Your task to perform on an android device: Open my contact list Image 0: 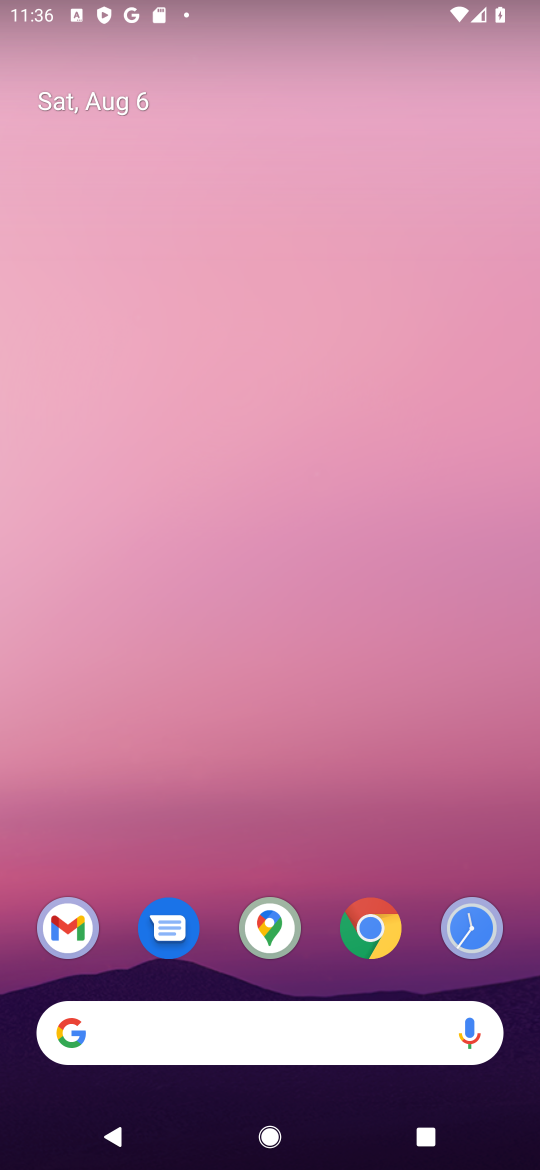
Step 0: drag from (145, 838) to (159, 109)
Your task to perform on an android device: Open my contact list Image 1: 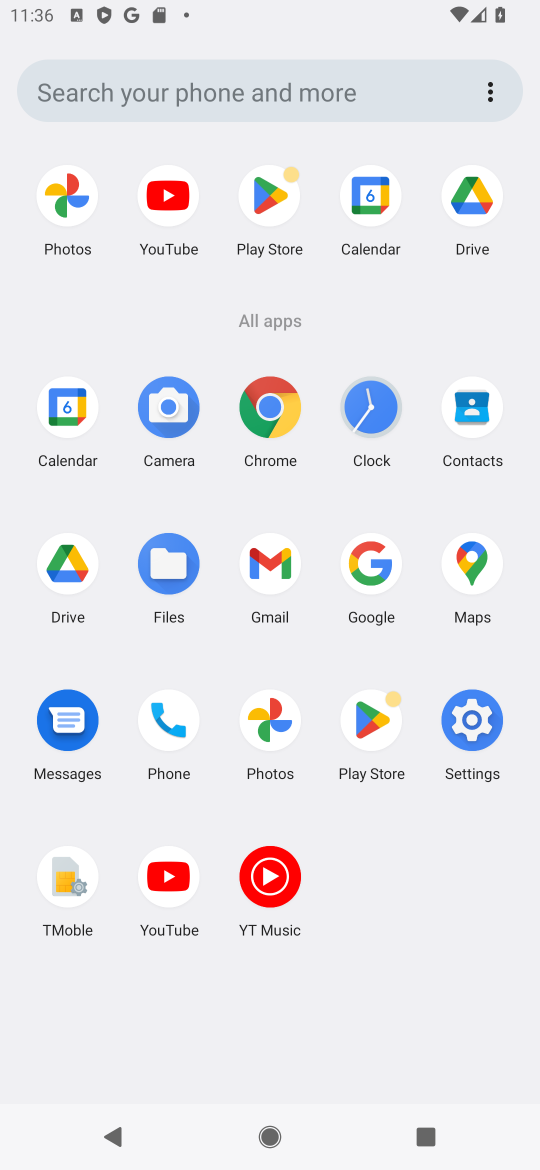
Step 1: click (477, 417)
Your task to perform on an android device: Open my contact list Image 2: 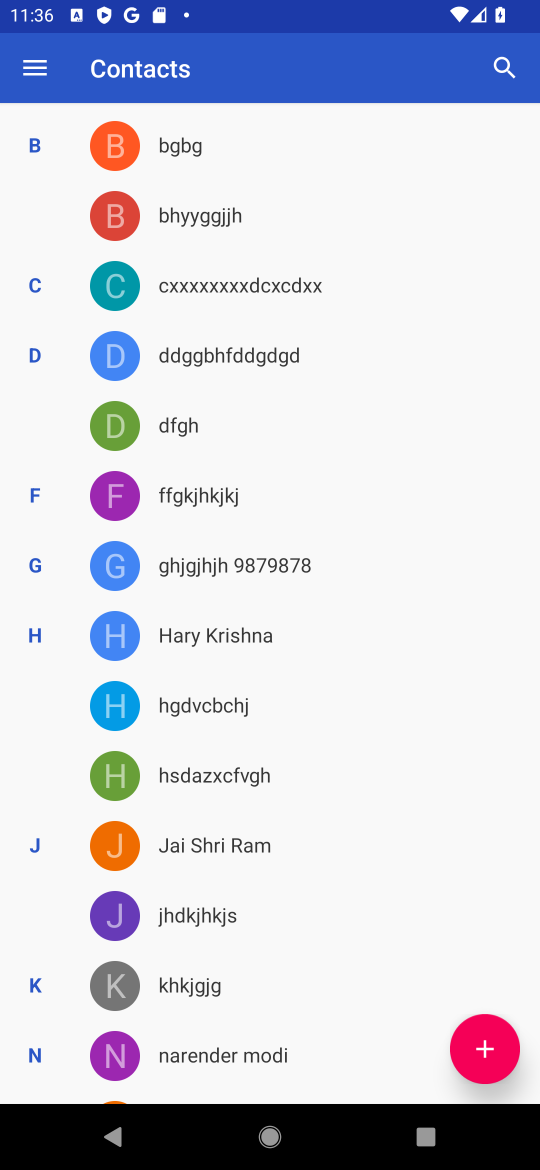
Step 2: drag from (338, 778) to (214, 75)
Your task to perform on an android device: Open my contact list Image 3: 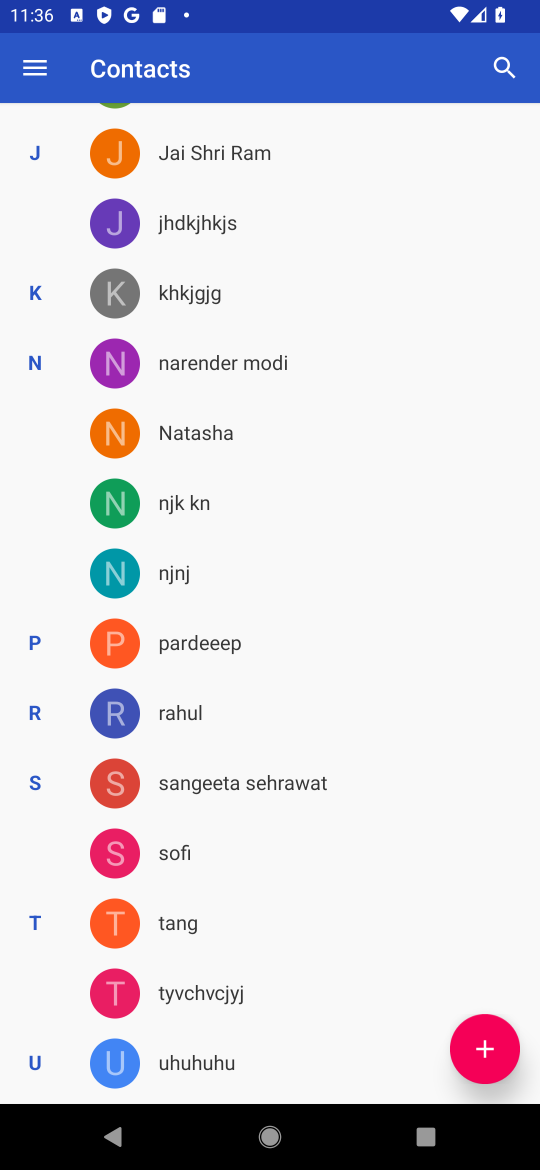
Step 3: drag from (438, 867) to (345, 355)
Your task to perform on an android device: Open my contact list Image 4: 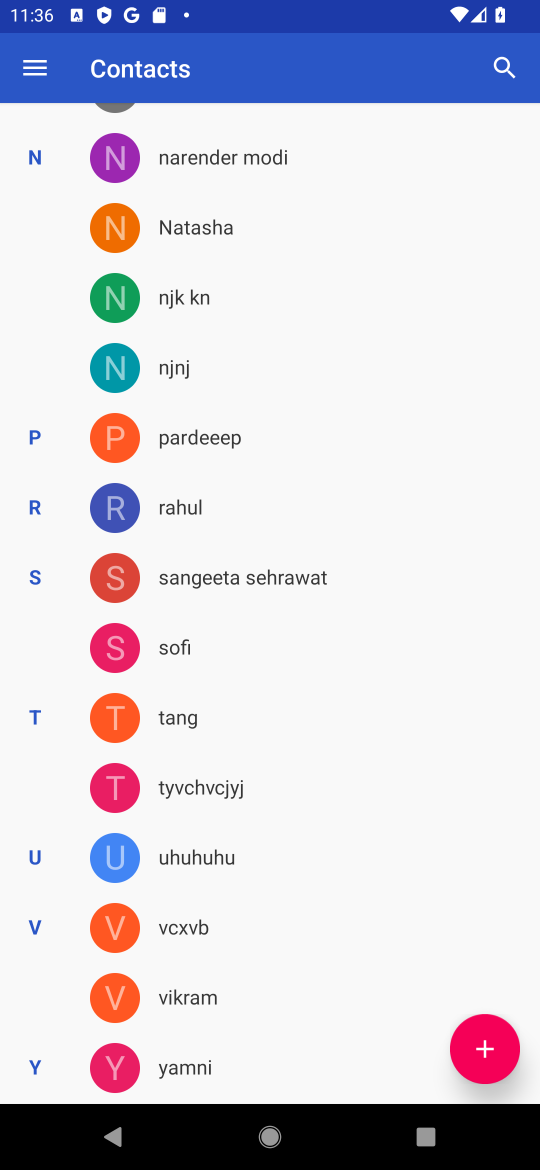
Step 4: click (321, 582)
Your task to perform on an android device: Open my contact list Image 5: 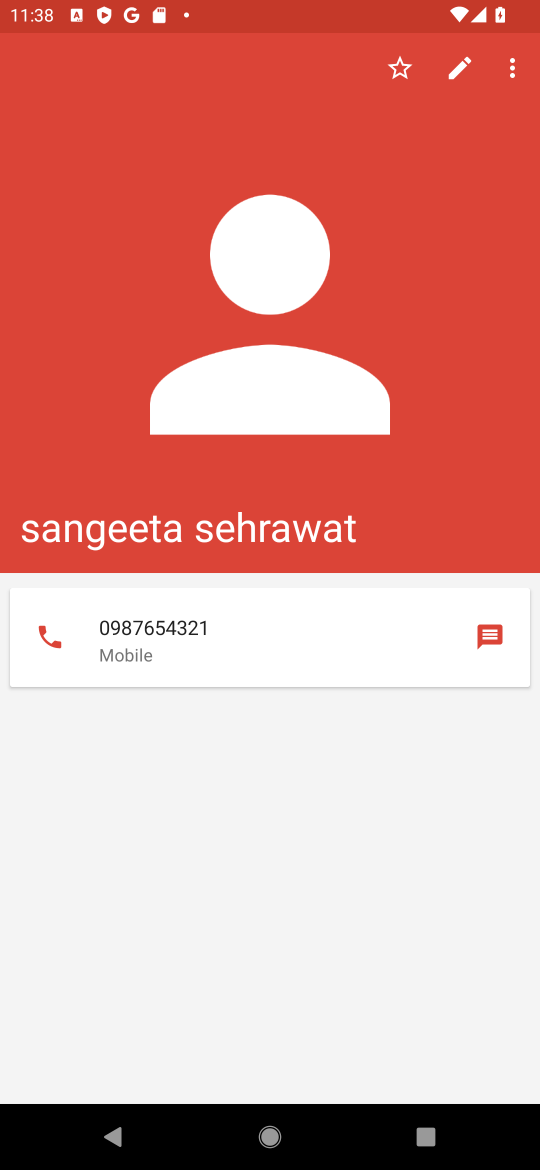
Step 5: task complete